Your task to perform on an android device: Open Chrome and go to settings Image 0: 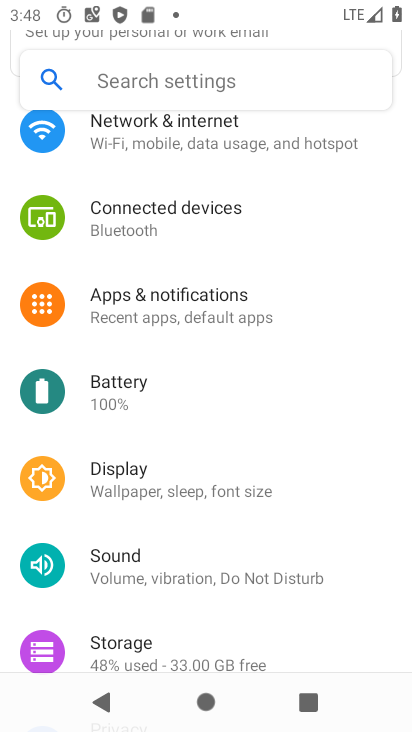
Step 0: press home button
Your task to perform on an android device: Open Chrome and go to settings Image 1: 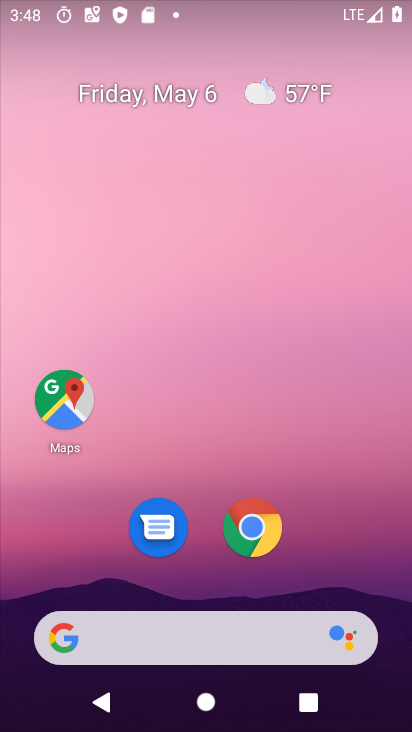
Step 1: click (249, 538)
Your task to perform on an android device: Open Chrome and go to settings Image 2: 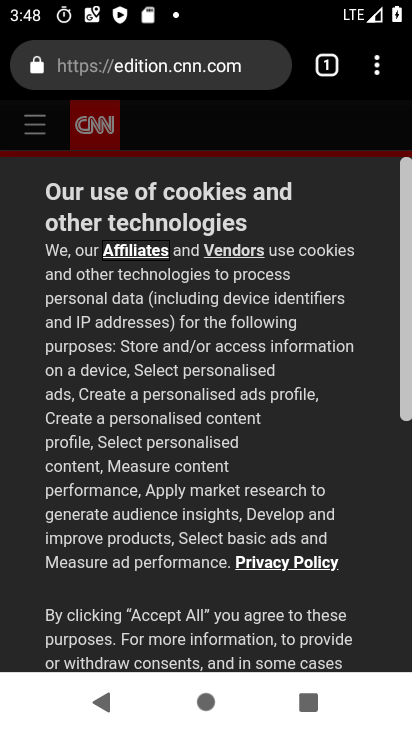
Step 2: click (376, 76)
Your task to perform on an android device: Open Chrome and go to settings Image 3: 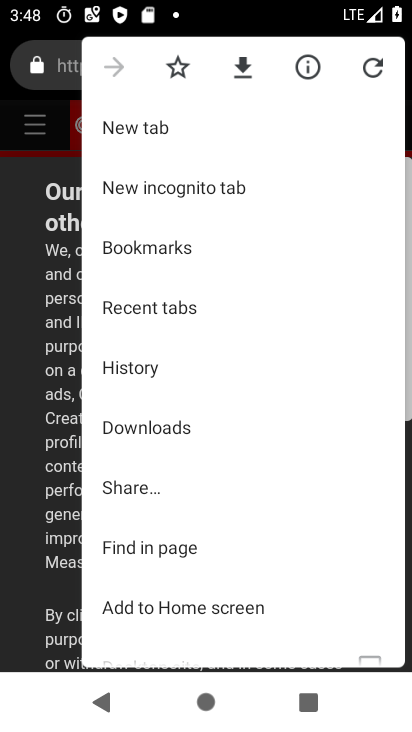
Step 3: drag from (156, 567) to (186, 127)
Your task to perform on an android device: Open Chrome and go to settings Image 4: 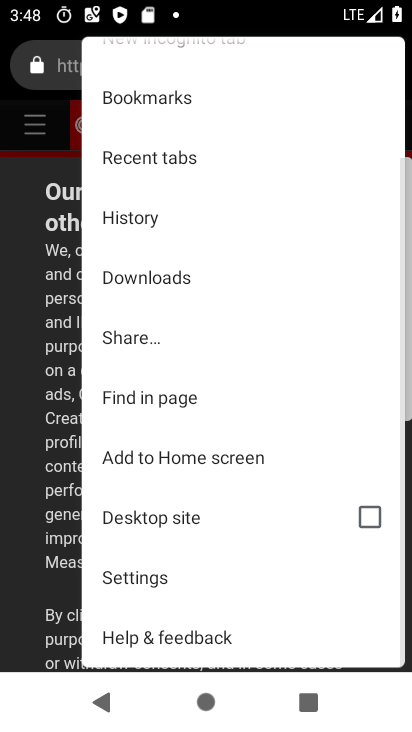
Step 4: click (131, 566)
Your task to perform on an android device: Open Chrome and go to settings Image 5: 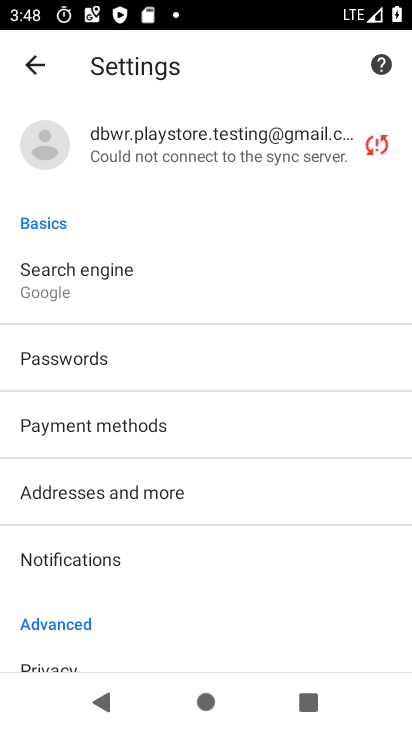
Step 5: task complete